Your task to perform on an android device: toggle notification dots Image 0: 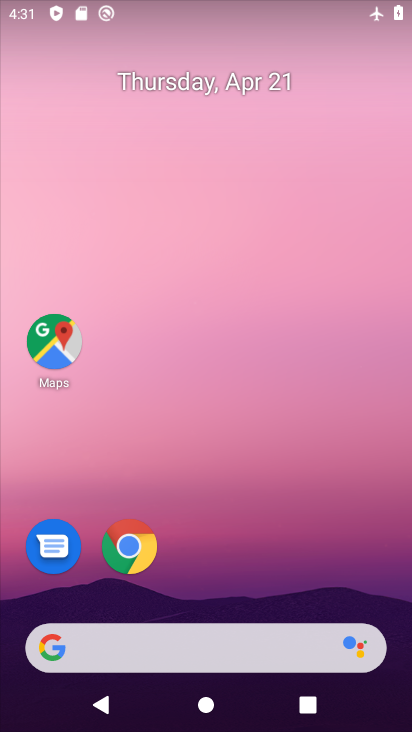
Step 0: drag from (210, 332) to (211, 135)
Your task to perform on an android device: toggle notification dots Image 1: 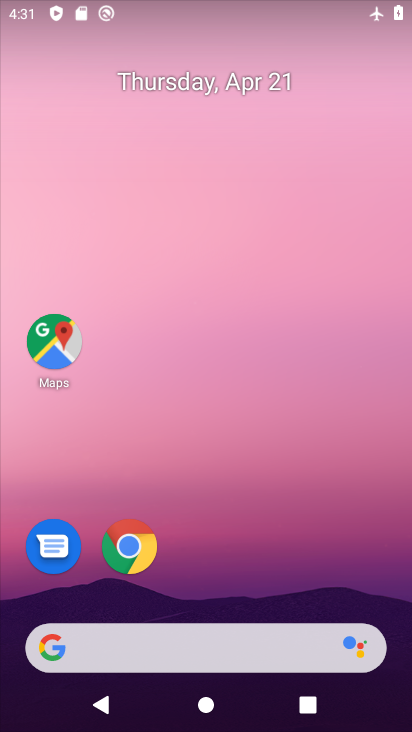
Step 1: drag from (271, 491) to (215, 54)
Your task to perform on an android device: toggle notification dots Image 2: 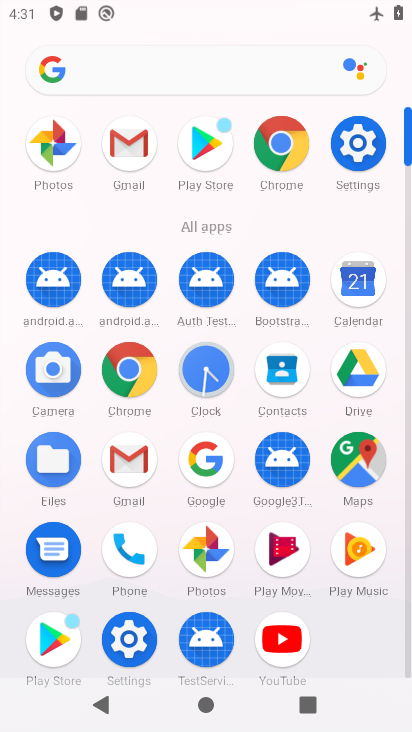
Step 2: click (362, 139)
Your task to perform on an android device: toggle notification dots Image 3: 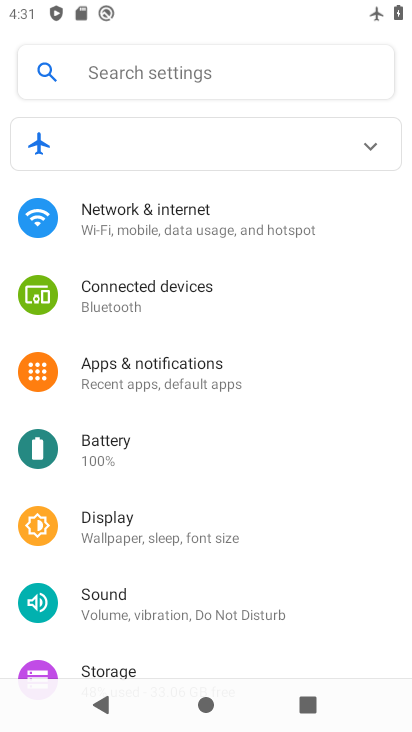
Step 3: click (125, 380)
Your task to perform on an android device: toggle notification dots Image 4: 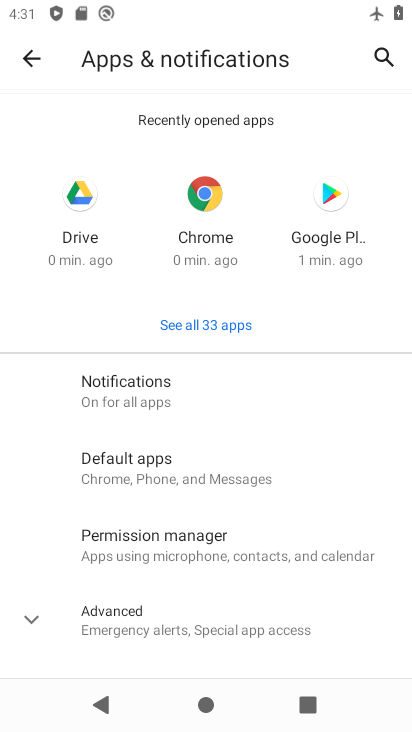
Step 4: click (129, 377)
Your task to perform on an android device: toggle notification dots Image 5: 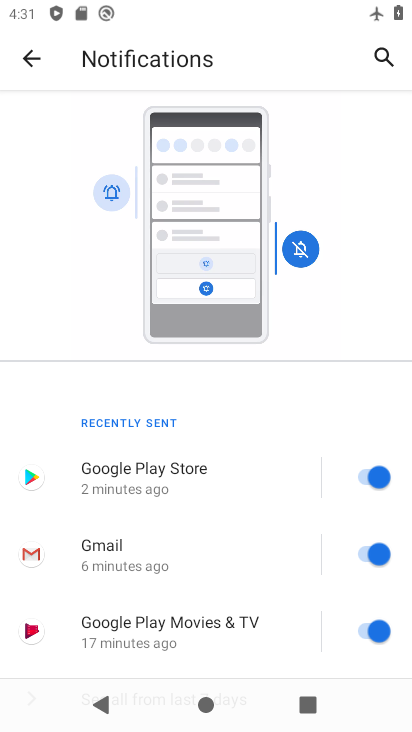
Step 5: drag from (241, 451) to (279, 141)
Your task to perform on an android device: toggle notification dots Image 6: 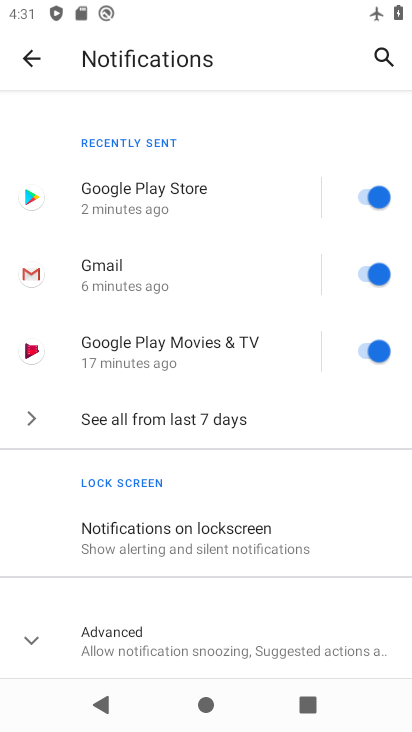
Step 6: click (263, 538)
Your task to perform on an android device: toggle notification dots Image 7: 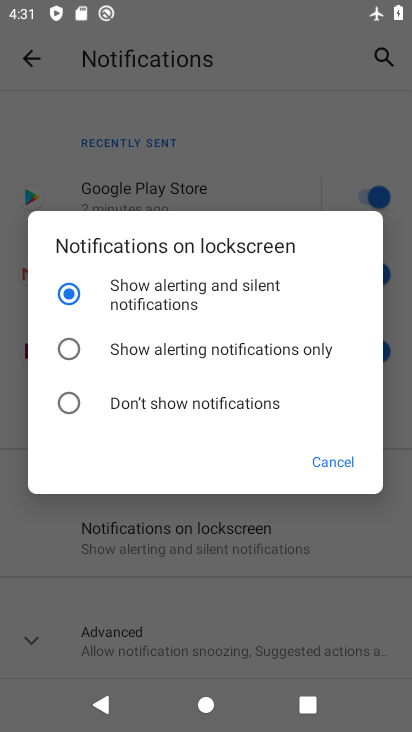
Step 7: click (269, 595)
Your task to perform on an android device: toggle notification dots Image 8: 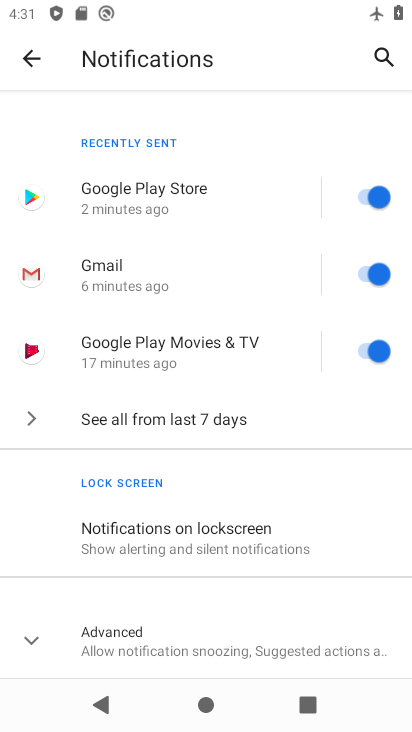
Step 8: click (269, 595)
Your task to perform on an android device: toggle notification dots Image 9: 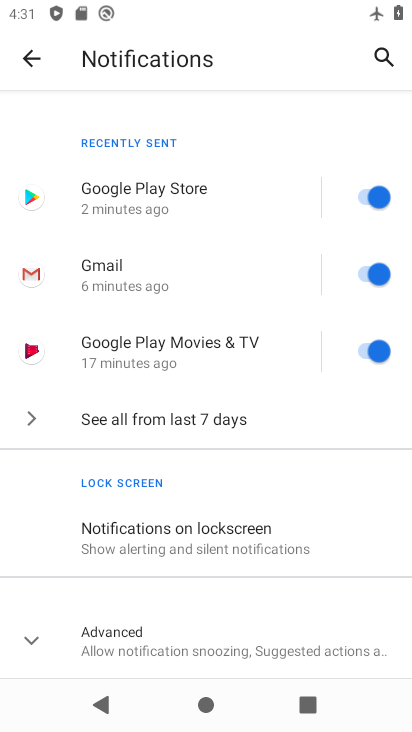
Step 9: drag from (273, 586) to (250, 214)
Your task to perform on an android device: toggle notification dots Image 10: 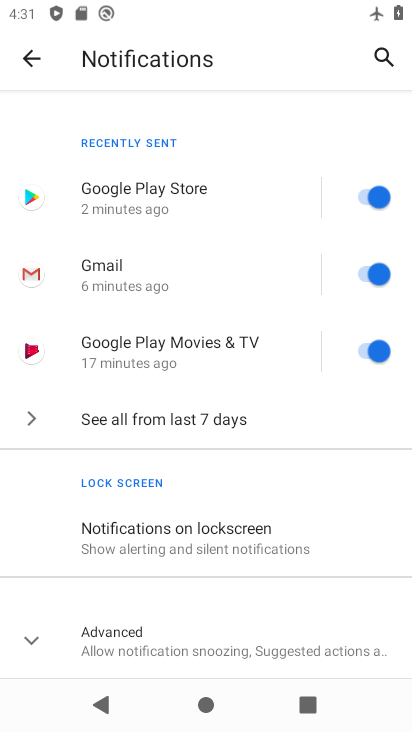
Step 10: click (226, 641)
Your task to perform on an android device: toggle notification dots Image 11: 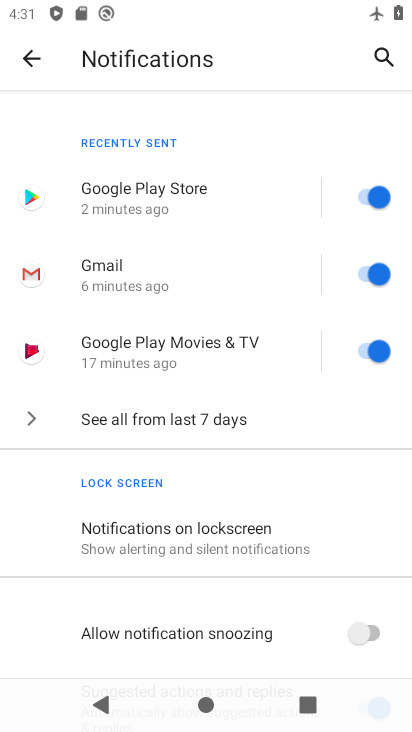
Step 11: drag from (231, 545) to (263, 284)
Your task to perform on an android device: toggle notification dots Image 12: 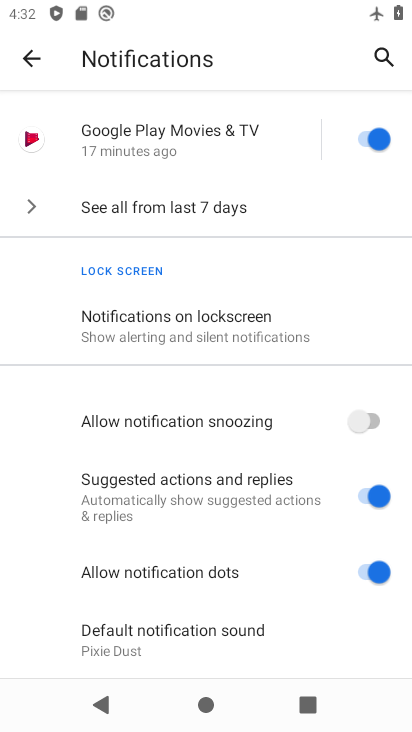
Step 12: click (368, 575)
Your task to perform on an android device: toggle notification dots Image 13: 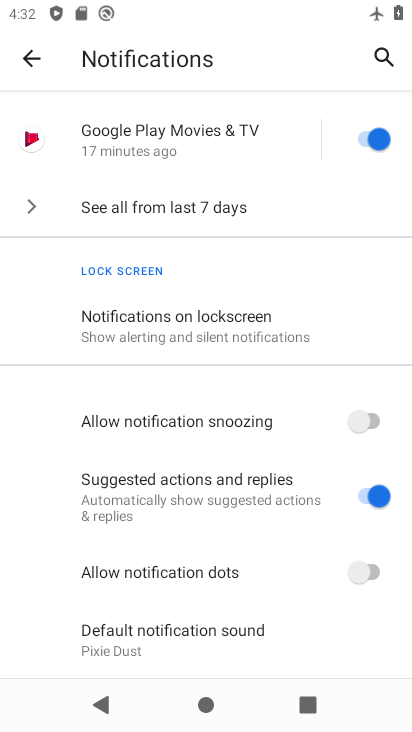
Step 13: task complete